Your task to perform on an android device: turn notification dots on Image 0: 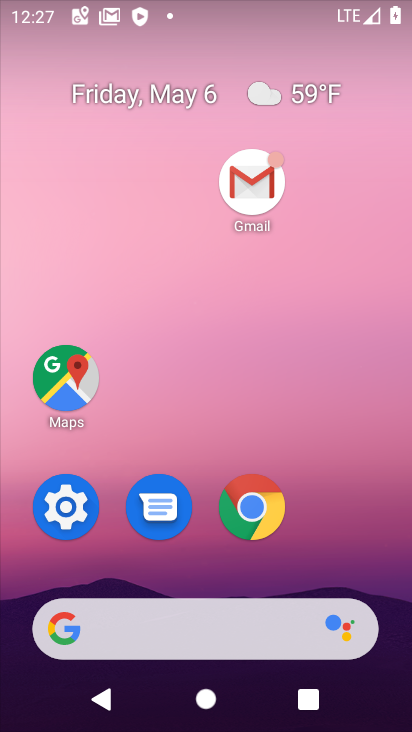
Step 0: click (72, 498)
Your task to perform on an android device: turn notification dots on Image 1: 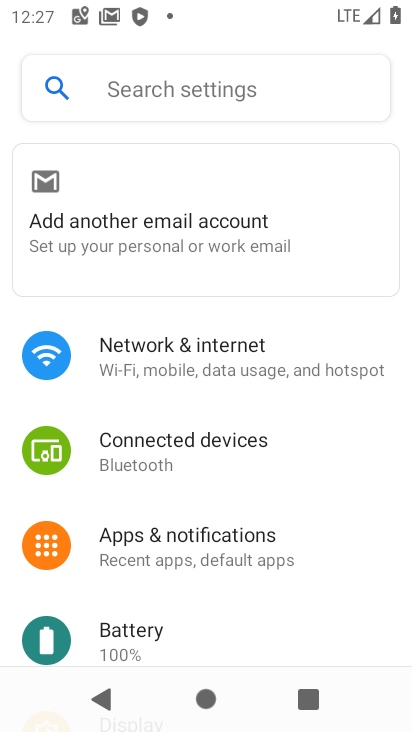
Step 1: click (206, 531)
Your task to perform on an android device: turn notification dots on Image 2: 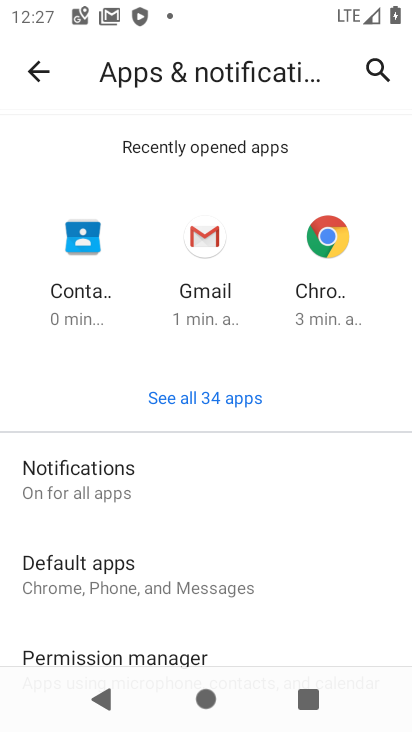
Step 2: click (93, 460)
Your task to perform on an android device: turn notification dots on Image 3: 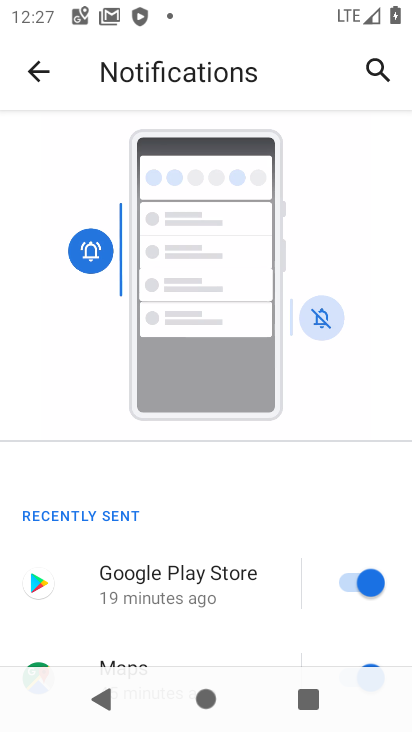
Step 3: drag from (256, 464) to (202, 106)
Your task to perform on an android device: turn notification dots on Image 4: 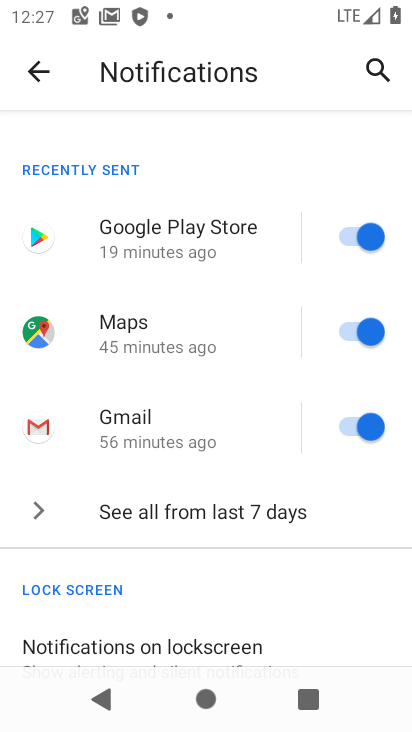
Step 4: drag from (184, 587) to (179, 304)
Your task to perform on an android device: turn notification dots on Image 5: 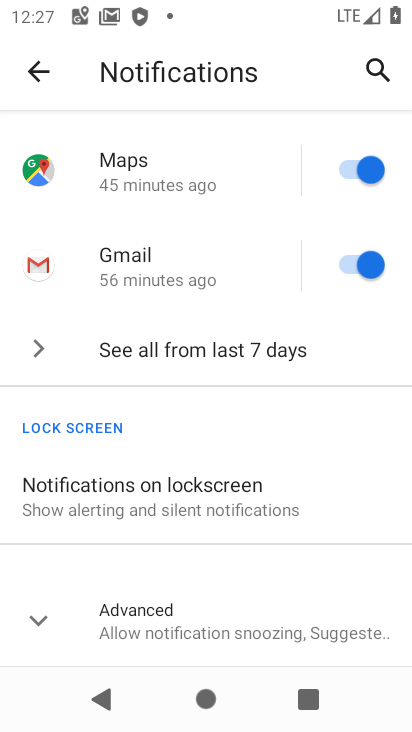
Step 5: click (48, 607)
Your task to perform on an android device: turn notification dots on Image 6: 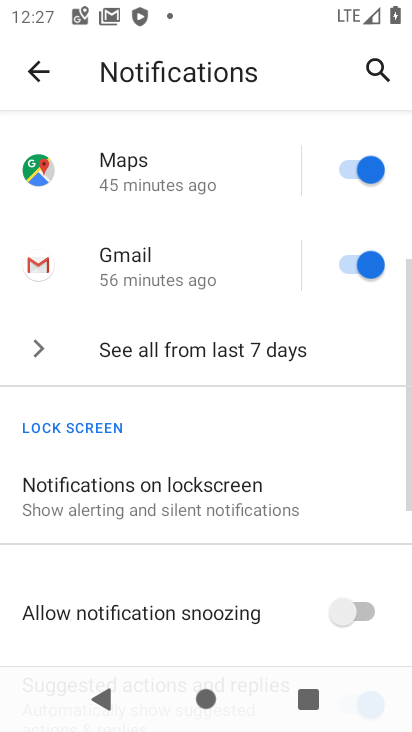
Step 6: task complete